Your task to perform on an android device: turn off sleep mode Image 0: 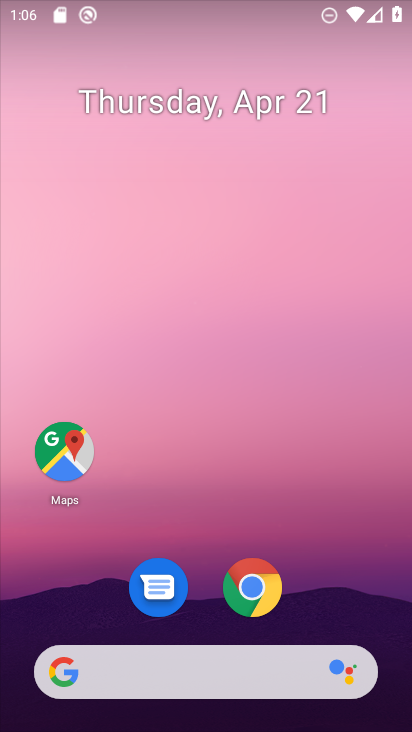
Step 0: drag from (343, 536) to (358, 159)
Your task to perform on an android device: turn off sleep mode Image 1: 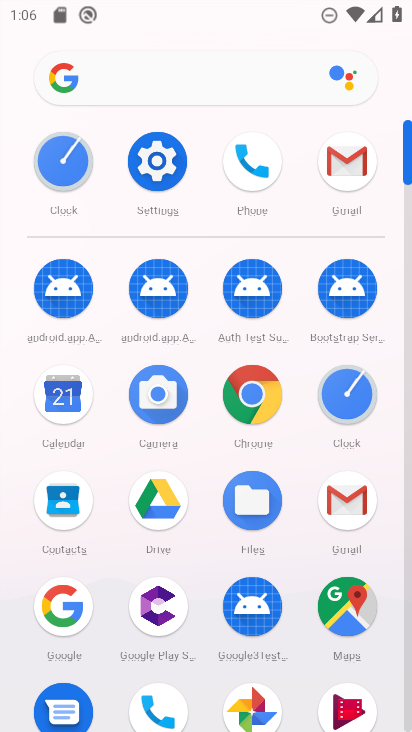
Step 1: click (158, 150)
Your task to perform on an android device: turn off sleep mode Image 2: 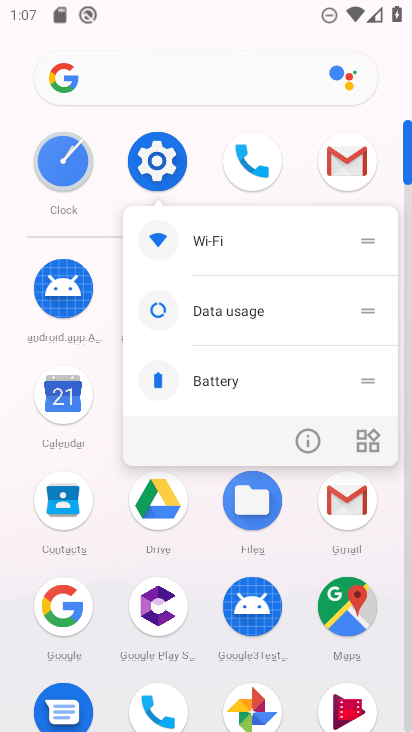
Step 2: click (95, 222)
Your task to perform on an android device: turn off sleep mode Image 3: 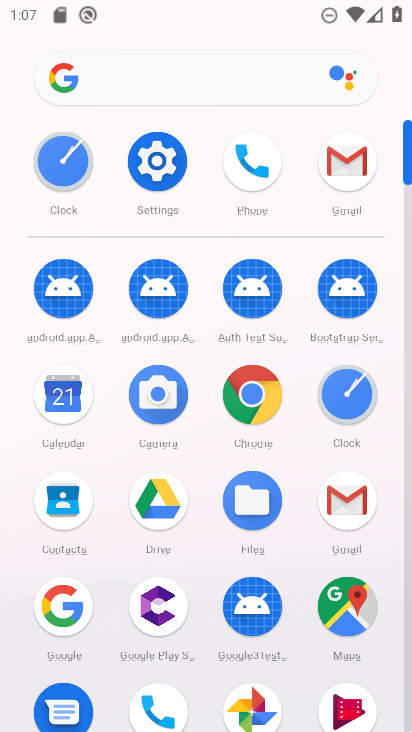
Step 3: click (146, 164)
Your task to perform on an android device: turn off sleep mode Image 4: 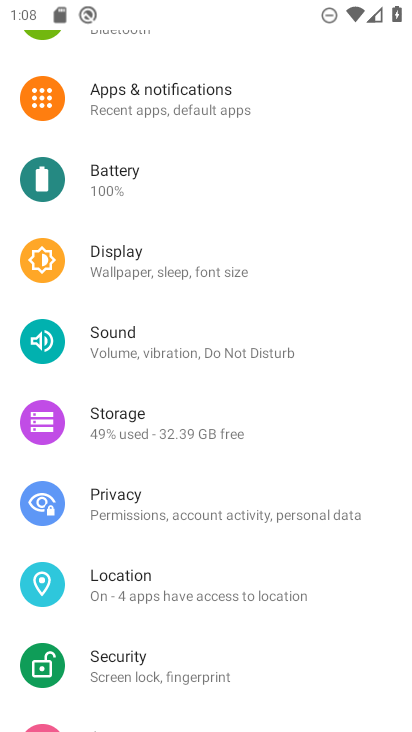
Step 4: click (95, 243)
Your task to perform on an android device: turn off sleep mode Image 5: 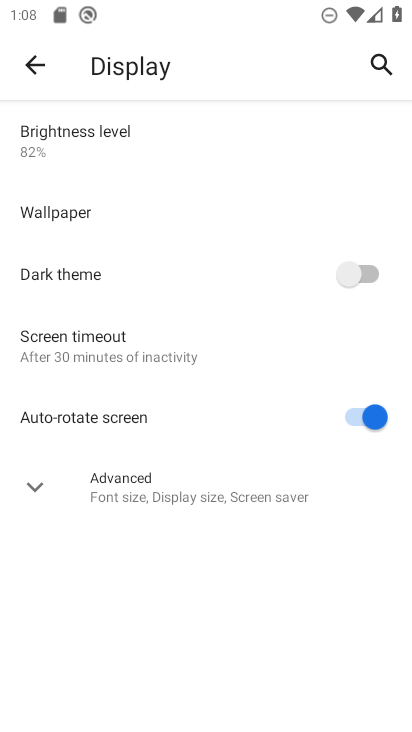
Step 5: click (27, 65)
Your task to perform on an android device: turn off sleep mode Image 6: 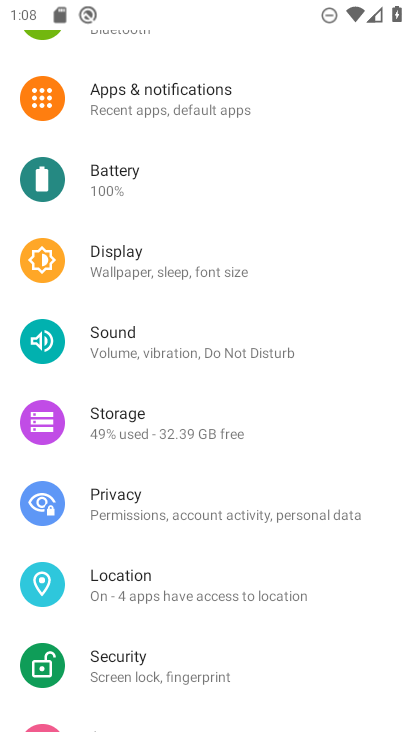
Step 6: task complete